Your task to perform on an android device: turn on the 12-hour format for clock Image 0: 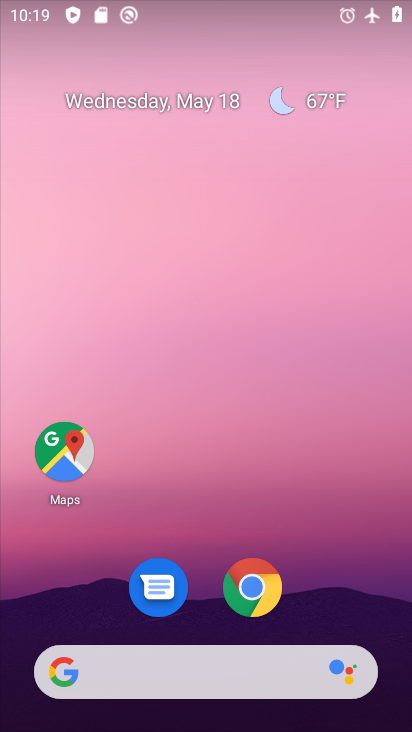
Step 0: drag from (350, 588) to (374, 205)
Your task to perform on an android device: turn on the 12-hour format for clock Image 1: 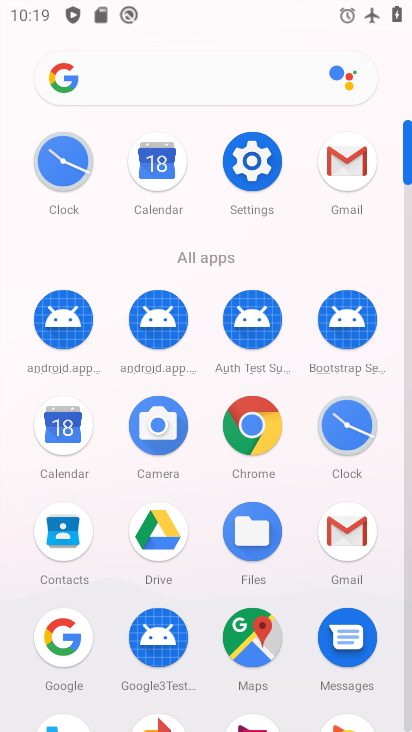
Step 1: click (76, 319)
Your task to perform on an android device: turn on the 12-hour format for clock Image 2: 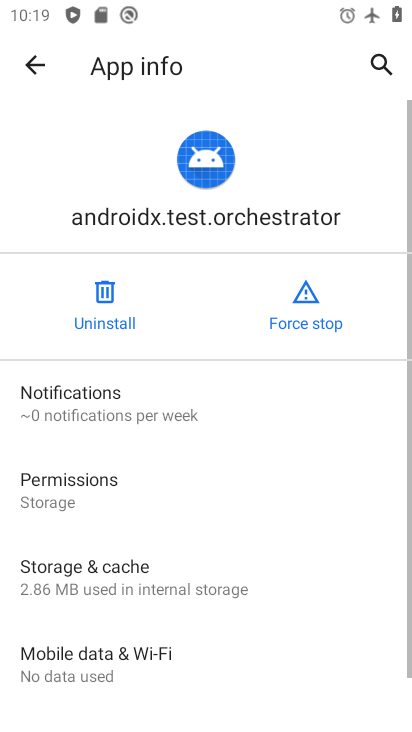
Step 2: click (67, 181)
Your task to perform on an android device: turn on the 12-hour format for clock Image 3: 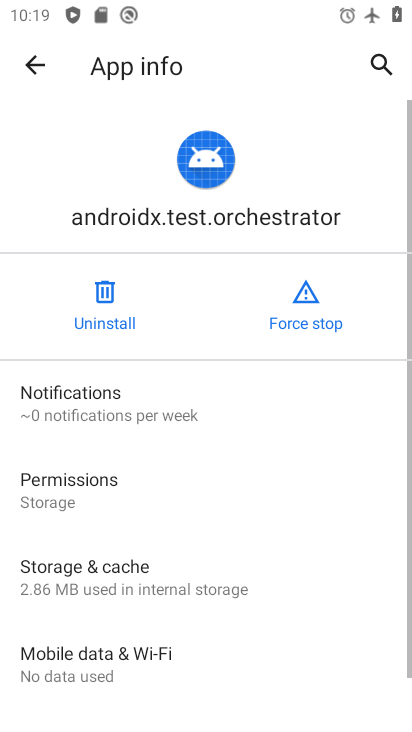
Step 3: press back button
Your task to perform on an android device: turn on the 12-hour format for clock Image 4: 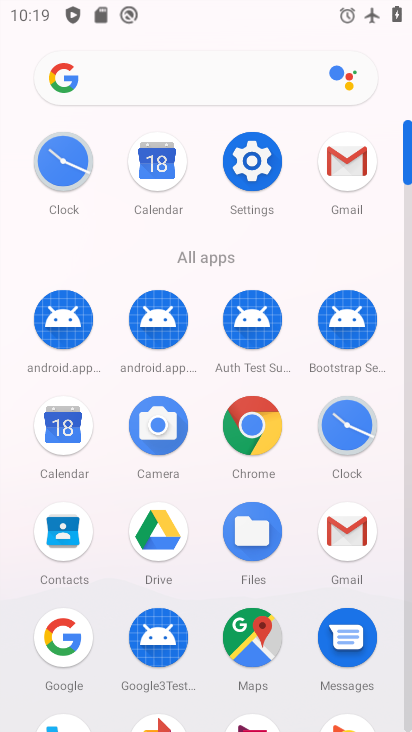
Step 4: click (61, 170)
Your task to perform on an android device: turn on the 12-hour format for clock Image 5: 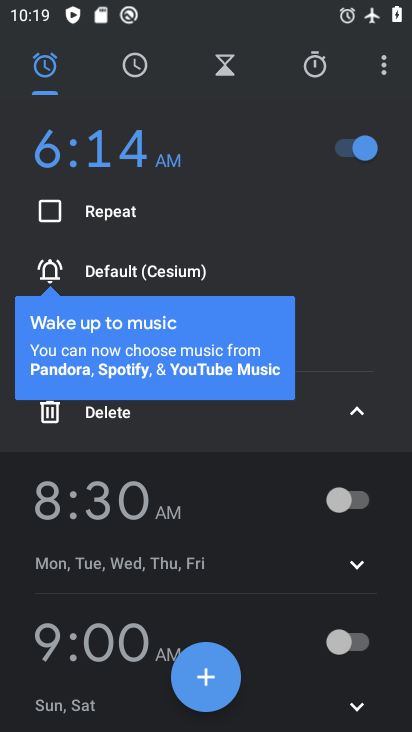
Step 5: click (367, 56)
Your task to perform on an android device: turn on the 12-hour format for clock Image 6: 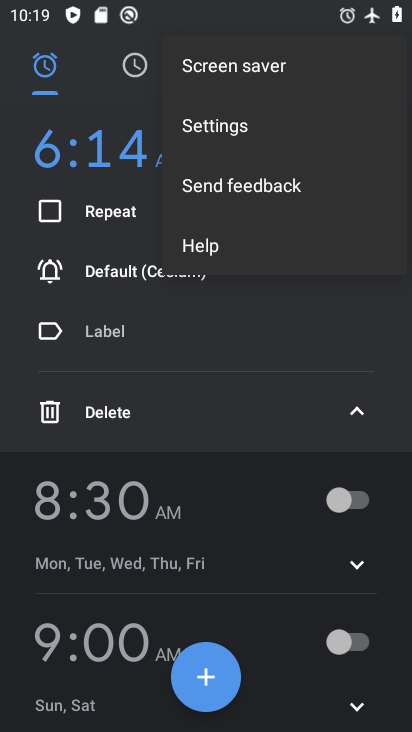
Step 6: click (322, 117)
Your task to perform on an android device: turn on the 12-hour format for clock Image 7: 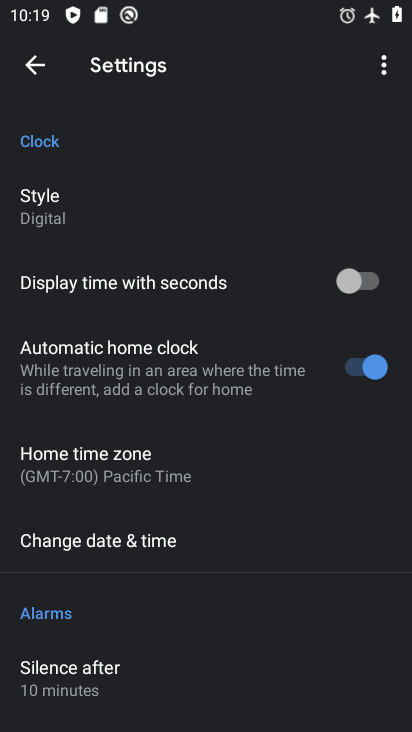
Step 7: drag from (292, 584) to (291, 96)
Your task to perform on an android device: turn on the 12-hour format for clock Image 8: 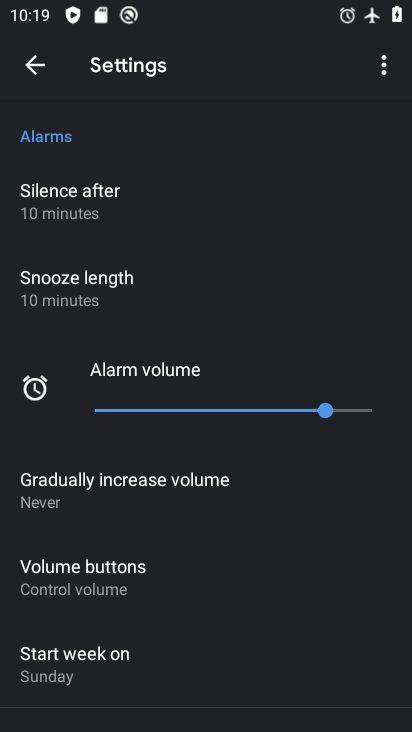
Step 8: drag from (121, 570) to (169, 93)
Your task to perform on an android device: turn on the 12-hour format for clock Image 9: 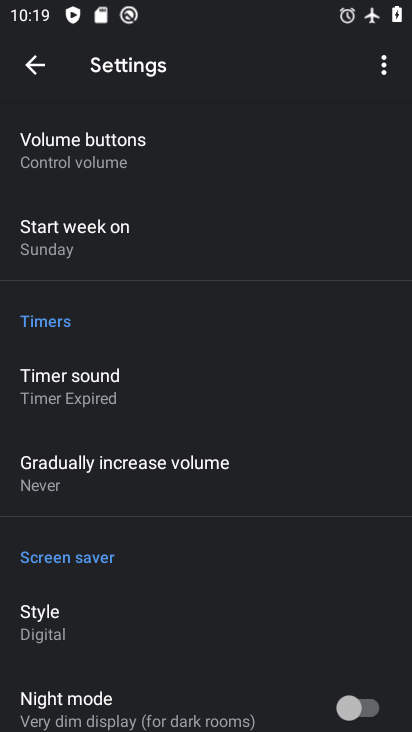
Step 9: drag from (124, 479) to (177, 168)
Your task to perform on an android device: turn on the 12-hour format for clock Image 10: 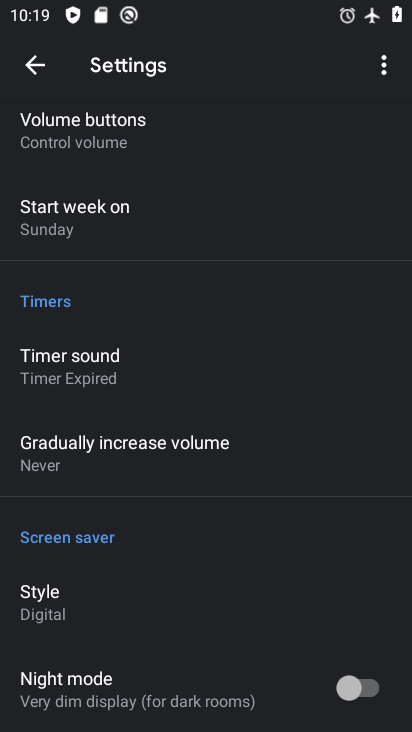
Step 10: drag from (244, 224) to (235, 524)
Your task to perform on an android device: turn on the 12-hour format for clock Image 11: 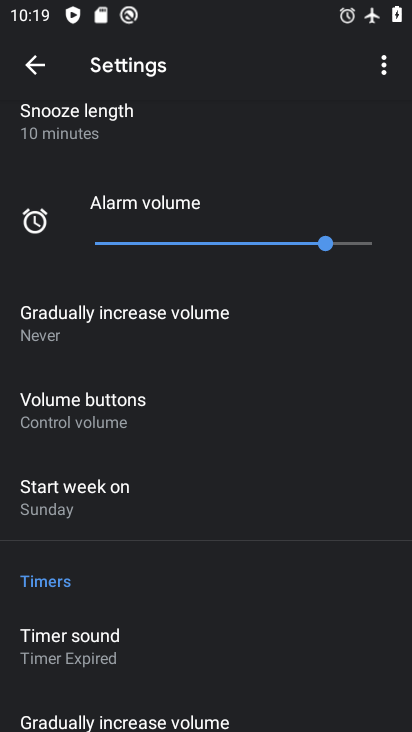
Step 11: click (387, 59)
Your task to perform on an android device: turn on the 12-hour format for clock Image 12: 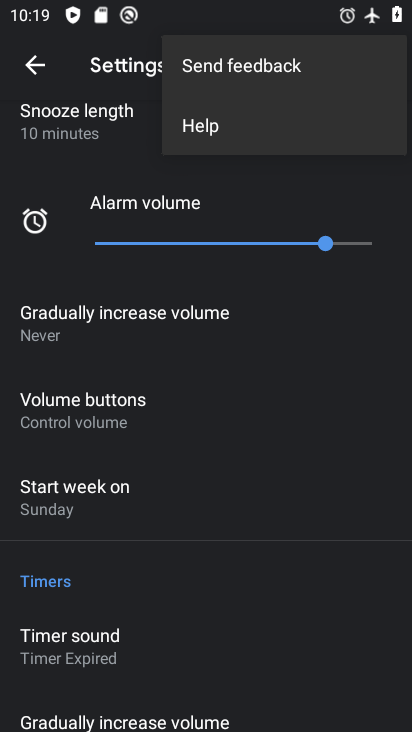
Step 12: task complete